Your task to perform on an android device: Clear all items from cart on newegg.com. Image 0: 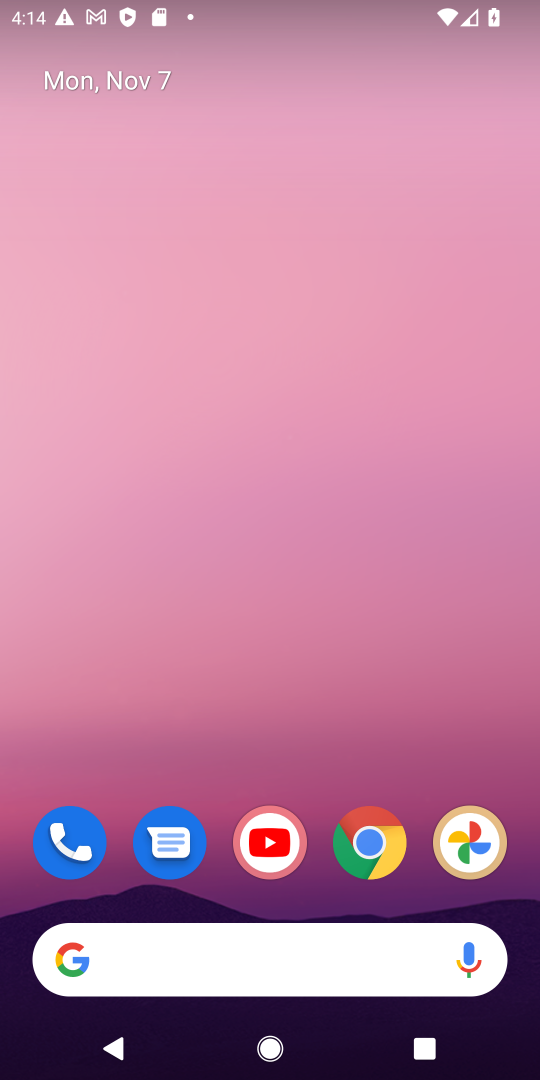
Step 0: drag from (216, 636) to (298, 96)
Your task to perform on an android device: Clear all items from cart on newegg.com. Image 1: 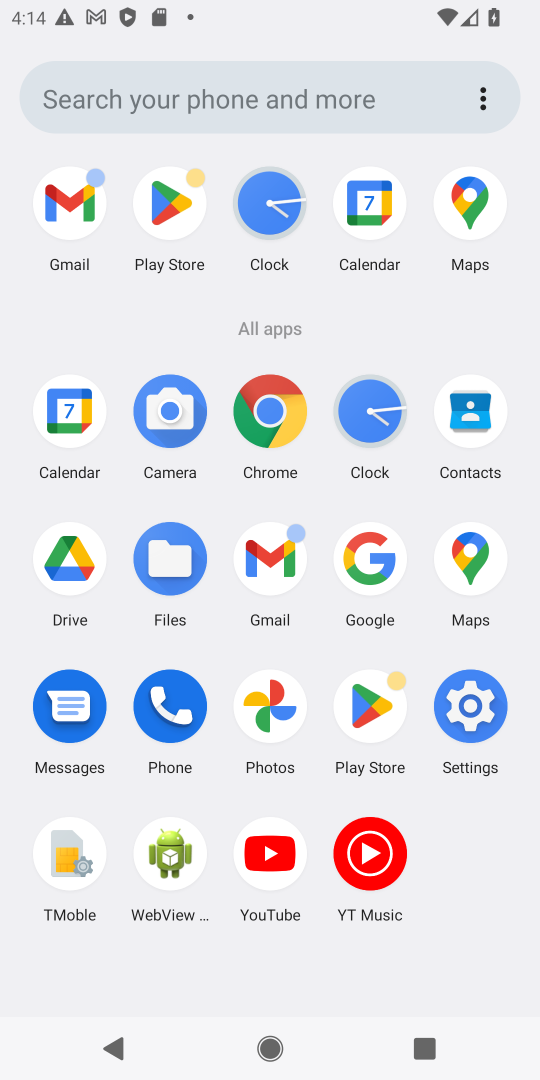
Step 1: click (261, 445)
Your task to perform on an android device: Clear all items from cart on newegg.com. Image 2: 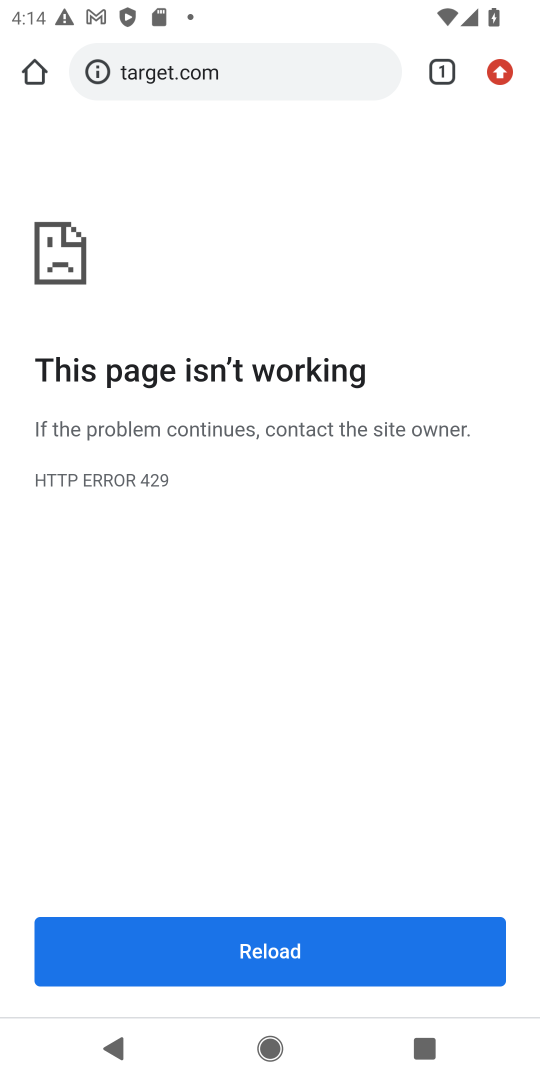
Step 2: click (221, 69)
Your task to perform on an android device: Clear all items from cart on newegg.com. Image 3: 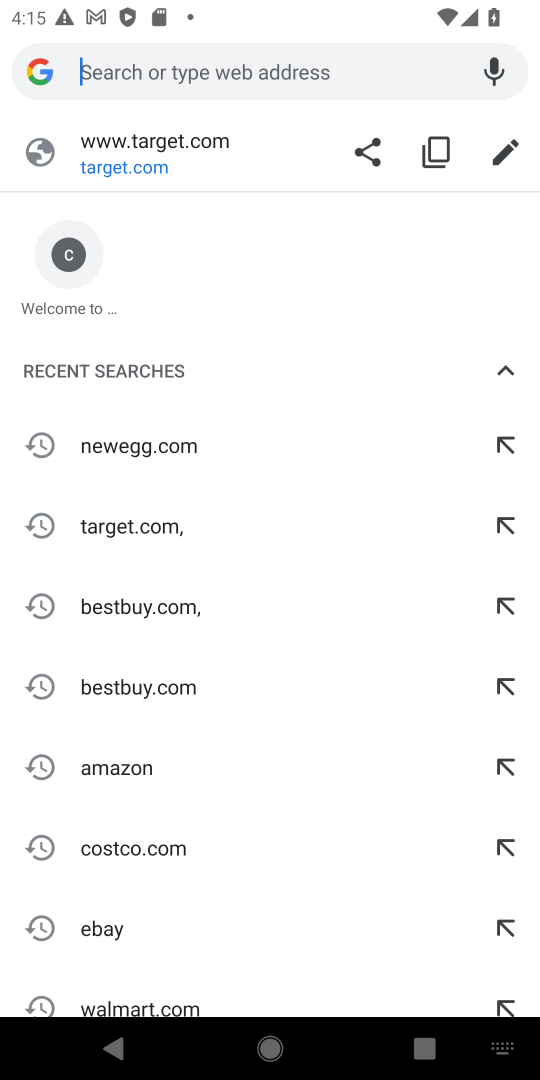
Step 3: type "newegg.com."
Your task to perform on an android device: Clear all items from cart on newegg.com. Image 4: 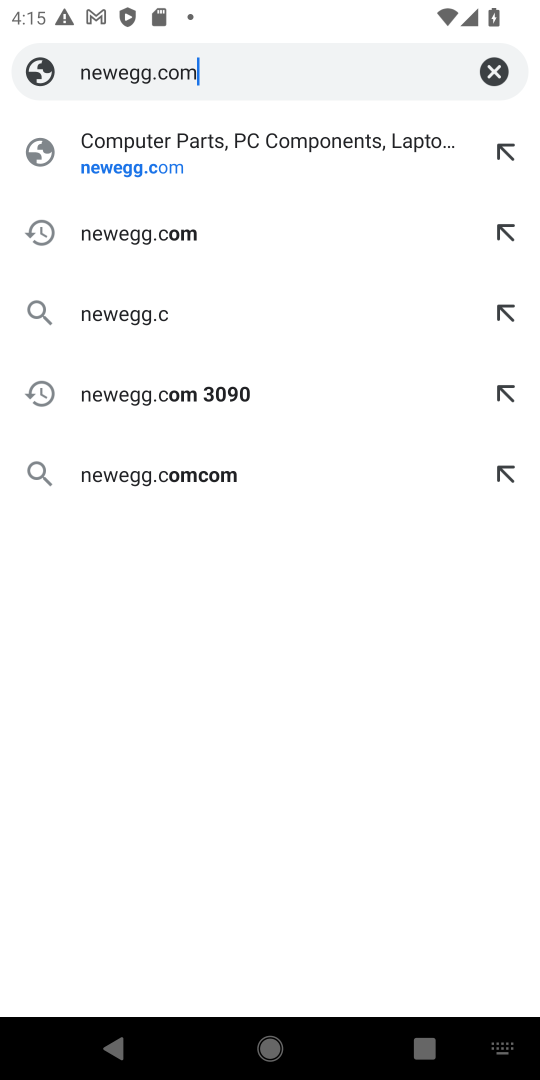
Step 4: press enter
Your task to perform on an android device: Clear all items from cart on newegg.com. Image 5: 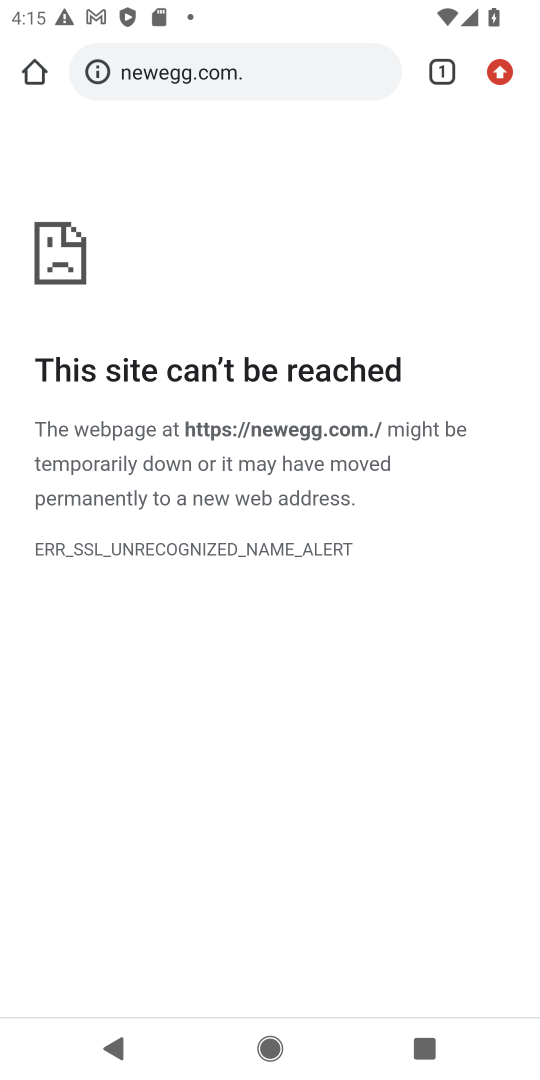
Step 5: task complete